Your task to perform on an android device: Open calendar and show me the second week of next month Image 0: 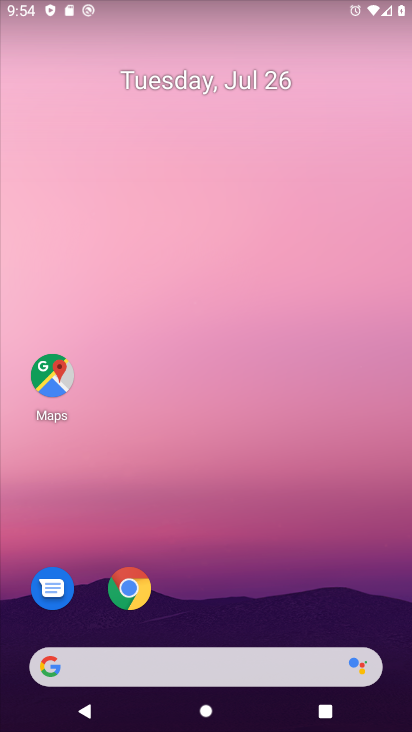
Step 0: drag from (320, 481) to (368, 16)
Your task to perform on an android device: Open calendar and show me the second week of next month Image 1: 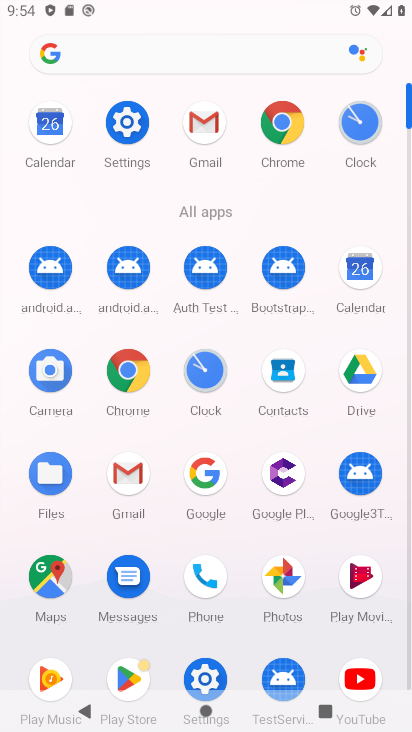
Step 1: click (359, 266)
Your task to perform on an android device: Open calendar and show me the second week of next month Image 2: 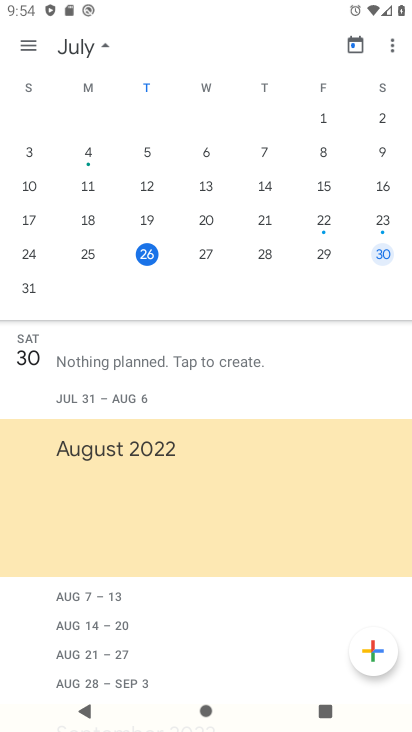
Step 2: drag from (384, 183) to (25, 217)
Your task to perform on an android device: Open calendar and show me the second week of next month Image 3: 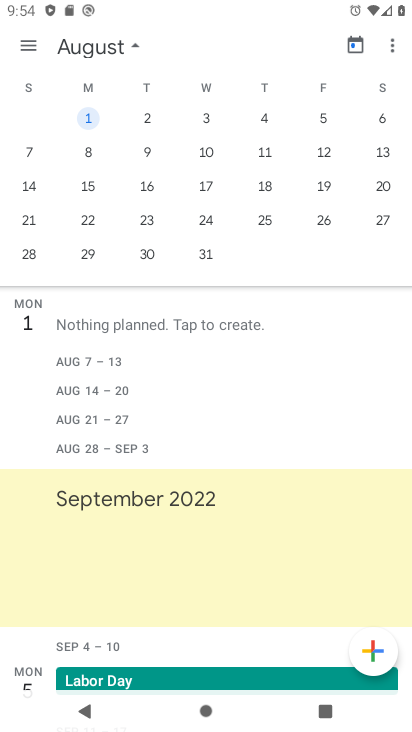
Step 3: click (91, 150)
Your task to perform on an android device: Open calendar and show me the second week of next month Image 4: 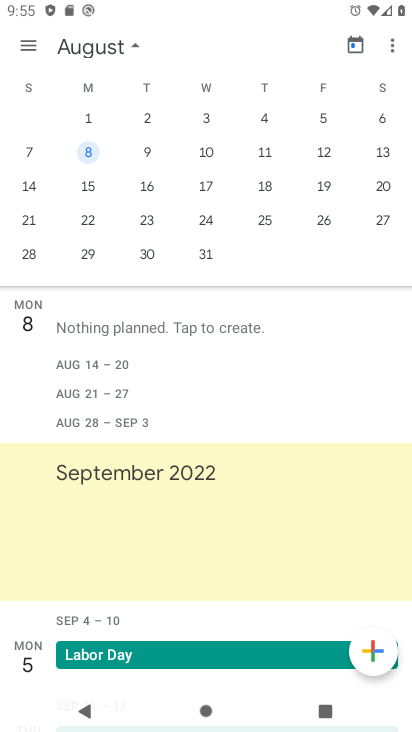
Step 4: task complete